Your task to perform on an android device: toggle priority inbox in the gmail app Image 0: 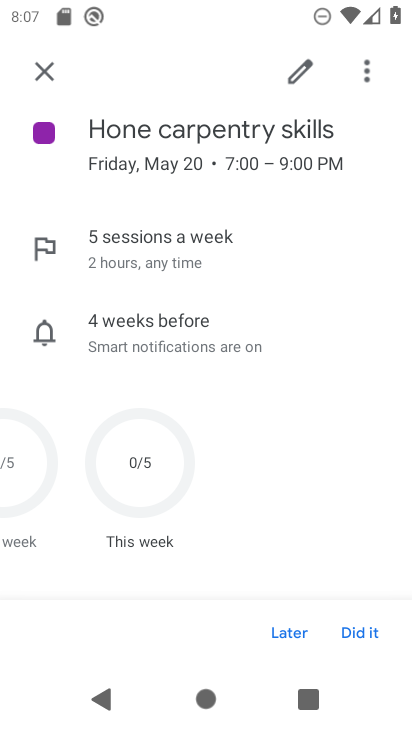
Step 0: press home button
Your task to perform on an android device: toggle priority inbox in the gmail app Image 1: 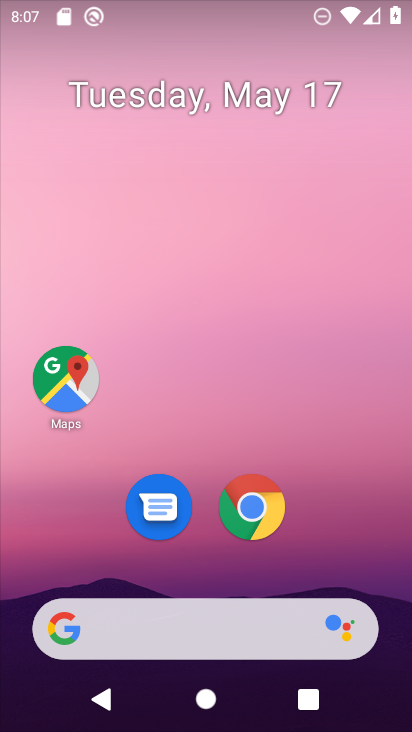
Step 1: drag from (348, 578) to (363, 15)
Your task to perform on an android device: toggle priority inbox in the gmail app Image 2: 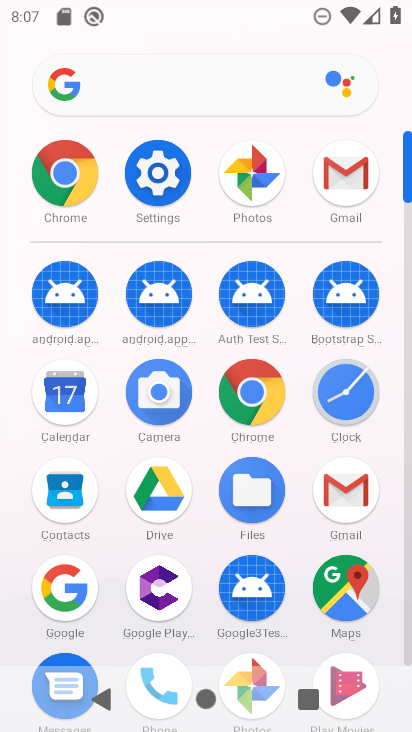
Step 2: click (346, 178)
Your task to perform on an android device: toggle priority inbox in the gmail app Image 3: 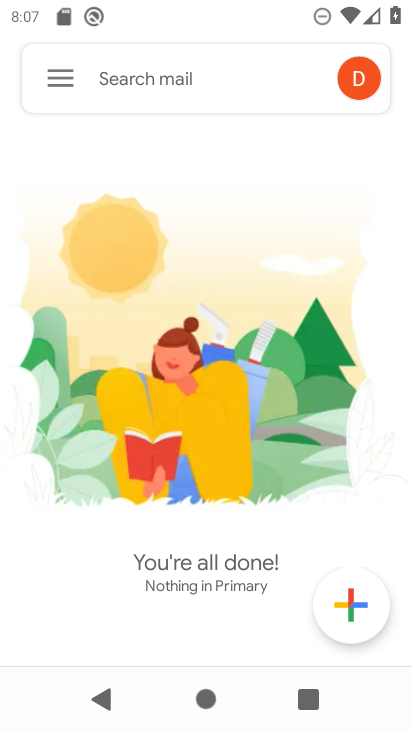
Step 3: click (61, 86)
Your task to perform on an android device: toggle priority inbox in the gmail app Image 4: 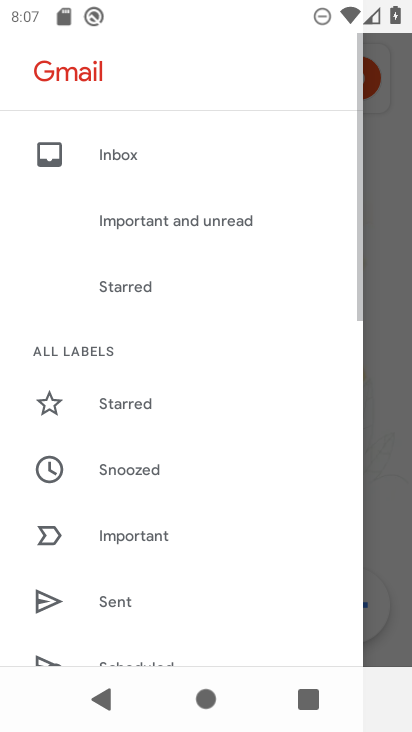
Step 4: drag from (159, 505) to (146, 93)
Your task to perform on an android device: toggle priority inbox in the gmail app Image 5: 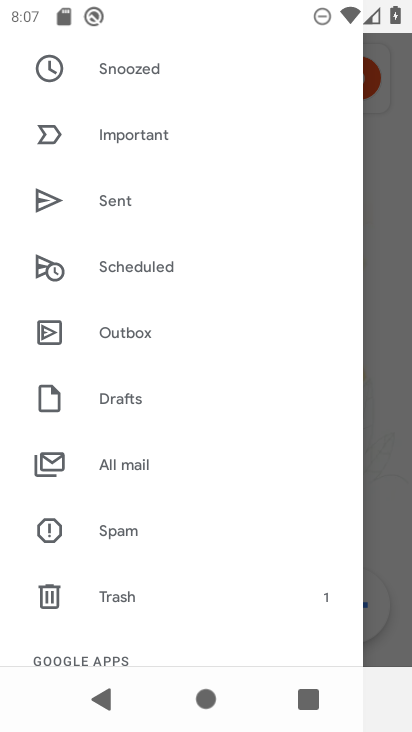
Step 5: drag from (154, 495) to (115, 114)
Your task to perform on an android device: toggle priority inbox in the gmail app Image 6: 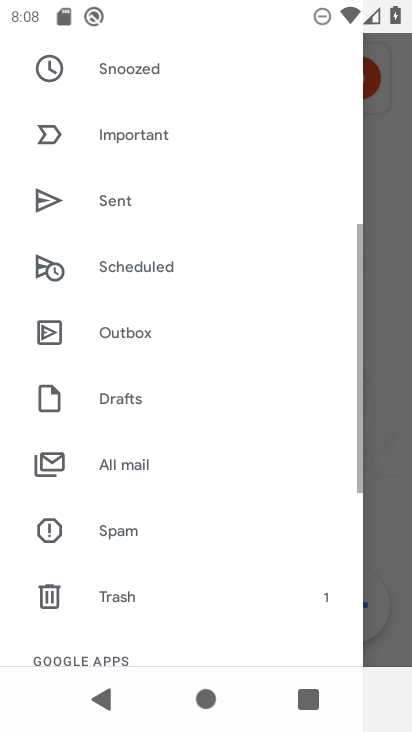
Step 6: drag from (180, 556) to (274, 89)
Your task to perform on an android device: toggle priority inbox in the gmail app Image 7: 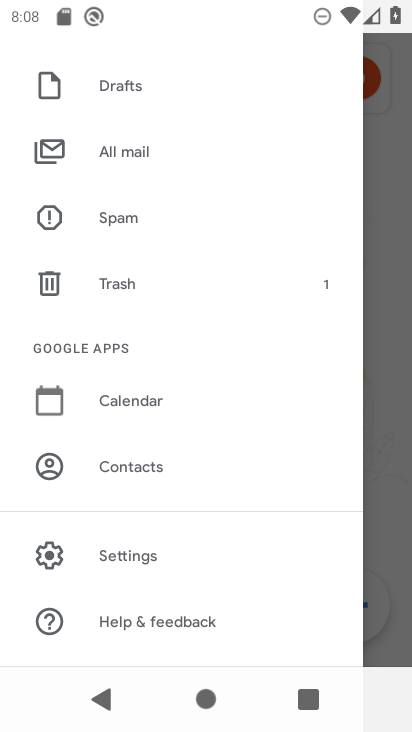
Step 7: click (112, 561)
Your task to perform on an android device: toggle priority inbox in the gmail app Image 8: 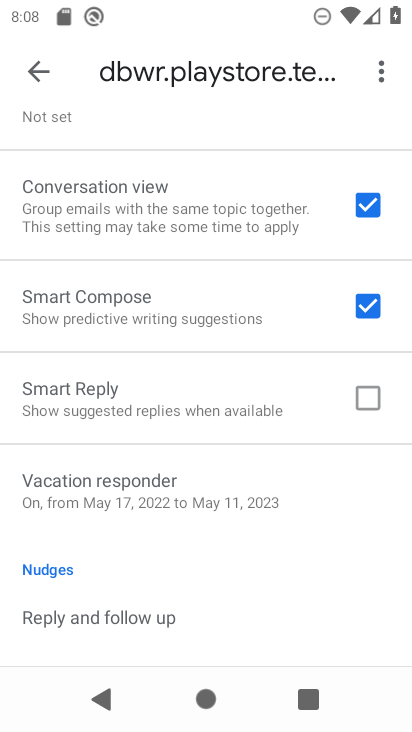
Step 8: drag from (108, 246) to (139, 678)
Your task to perform on an android device: toggle priority inbox in the gmail app Image 9: 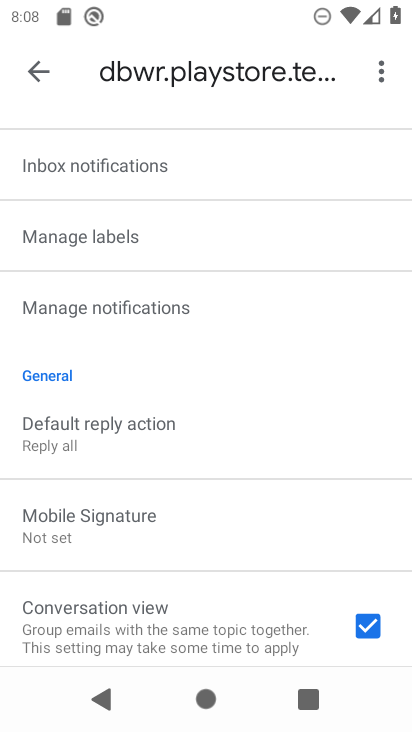
Step 9: drag from (113, 189) to (128, 570)
Your task to perform on an android device: toggle priority inbox in the gmail app Image 10: 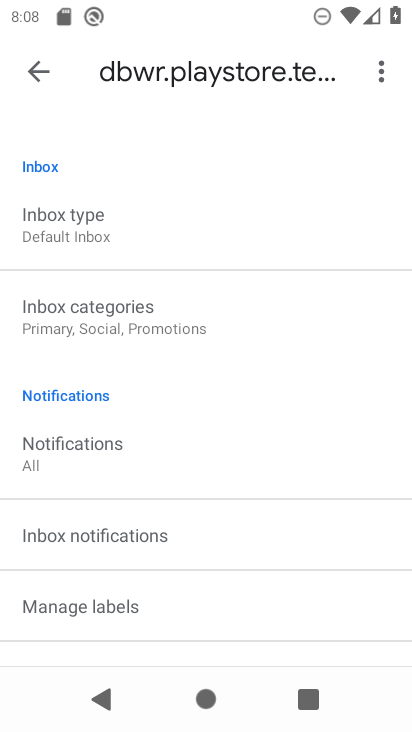
Step 10: click (53, 232)
Your task to perform on an android device: toggle priority inbox in the gmail app Image 11: 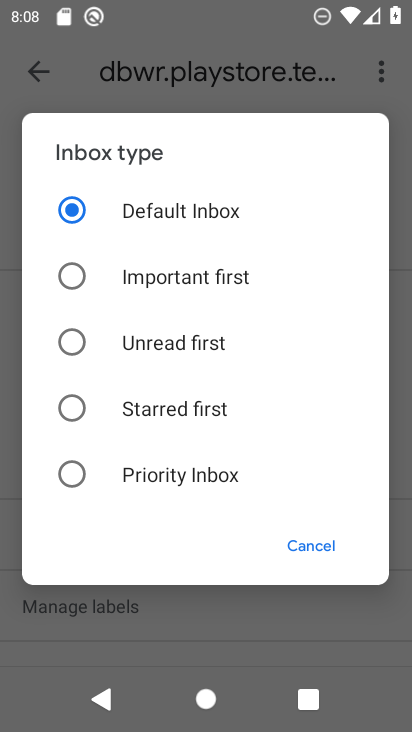
Step 11: click (62, 470)
Your task to perform on an android device: toggle priority inbox in the gmail app Image 12: 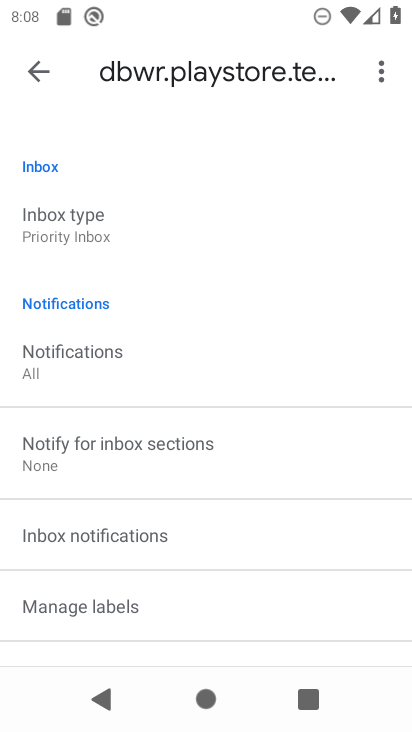
Step 12: task complete